Your task to perform on an android device: What is the recent news? Image 0: 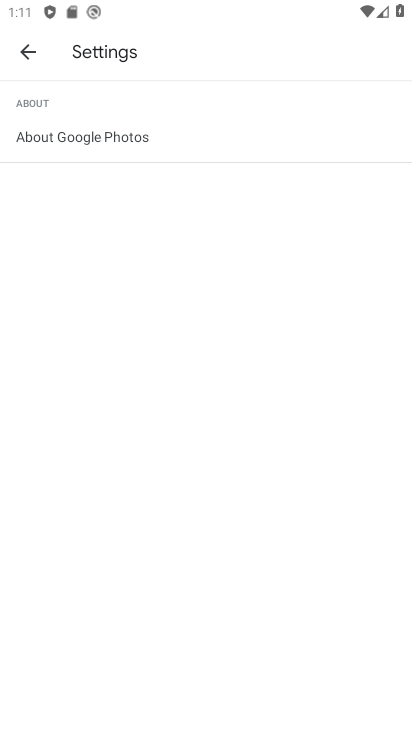
Step 0: drag from (326, 593) to (253, 0)
Your task to perform on an android device: What is the recent news? Image 1: 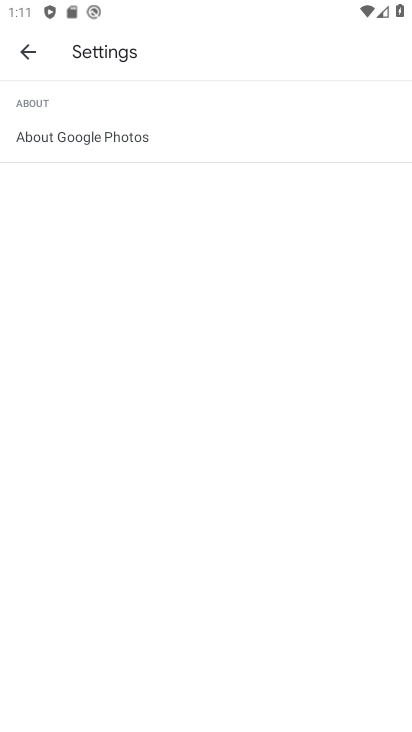
Step 1: press home button
Your task to perform on an android device: What is the recent news? Image 2: 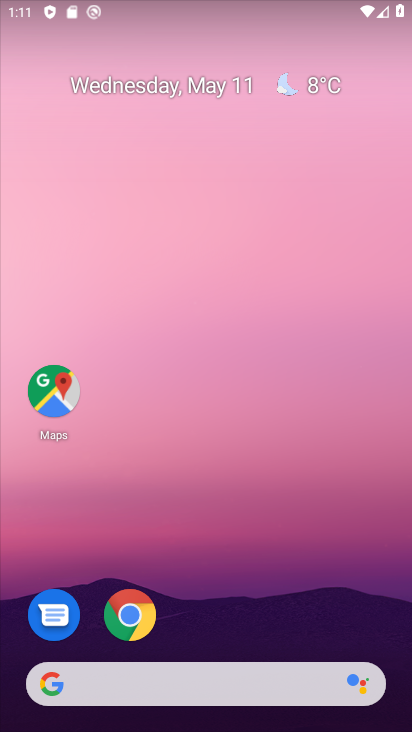
Step 2: drag from (317, 591) to (327, 29)
Your task to perform on an android device: What is the recent news? Image 3: 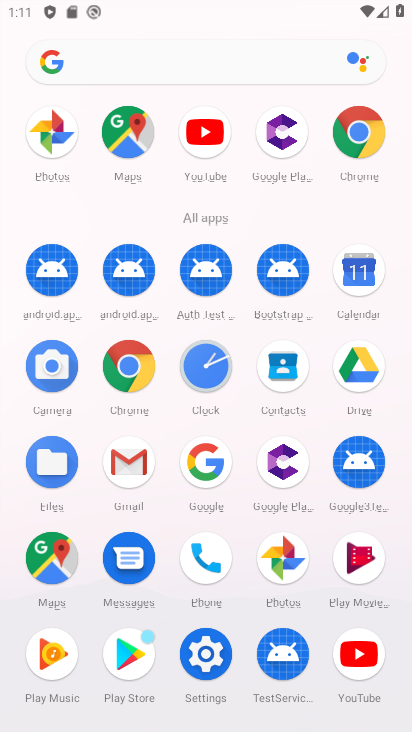
Step 3: click (358, 128)
Your task to perform on an android device: What is the recent news? Image 4: 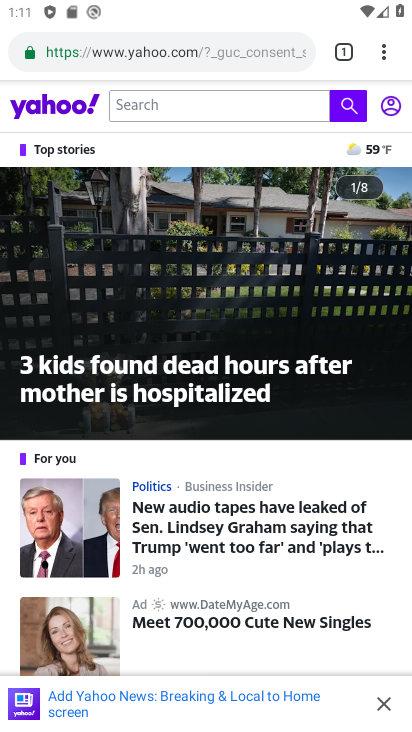
Step 4: task complete